Your task to perform on an android device: turn vacation reply on in the gmail app Image 0: 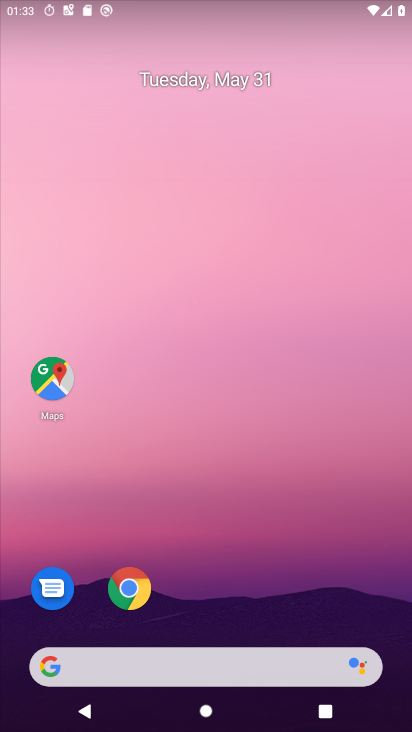
Step 0: drag from (122, 655) to (200, 14)
Your task to perform on an android device: turn vacation reply on in the gmail app Image 1: 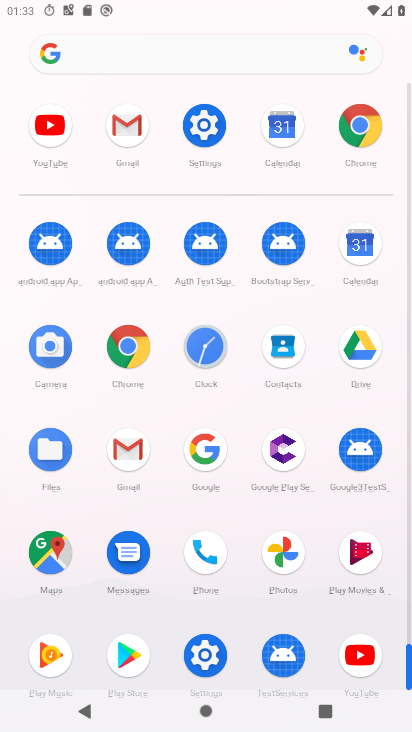
Step 1: click (126, 448)
Your task to perform on an android device: turn vacation reply on in the gmail app Image 2: 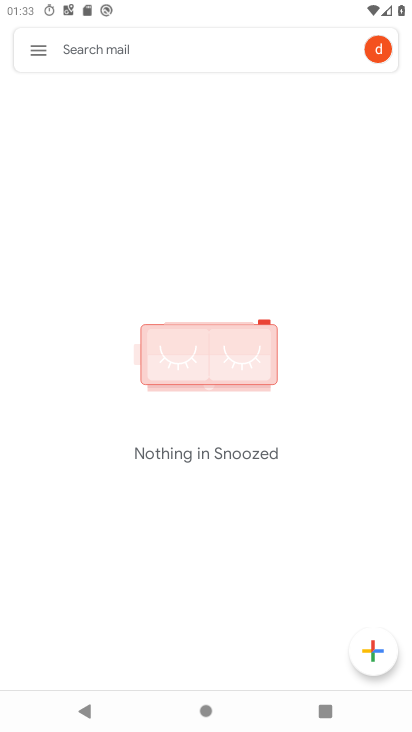
Step 2: click (42, 49)
Your task to perform on an android device: turn vacation reply on in the gmail app Image 3: 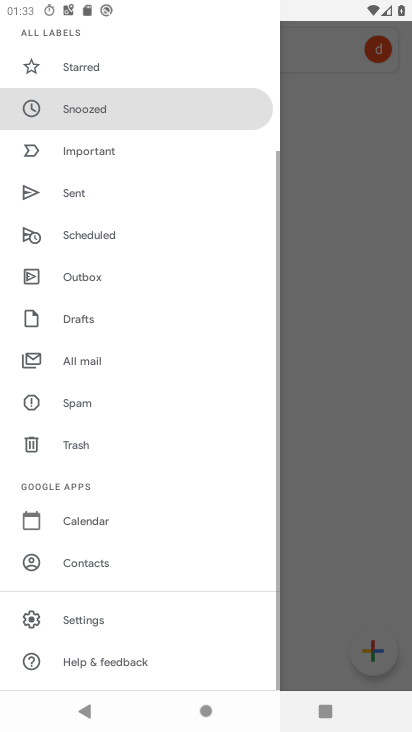
Step 3: click (107, 617)
Your task to perform on an android device: turn vacation reply on in the gmail app Image 4: 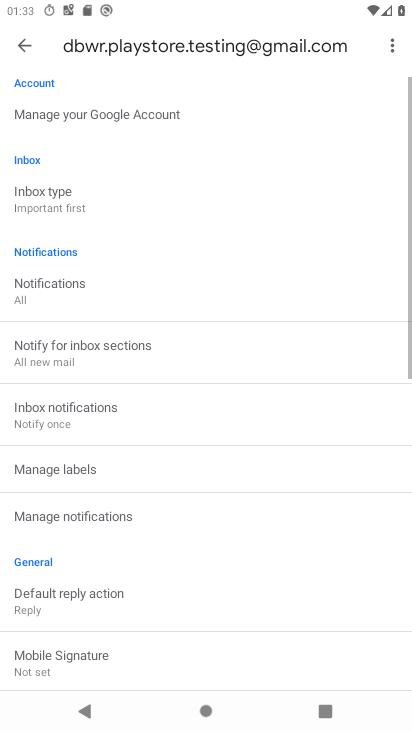
Step 4: drag from (154, 651) to (189, 184)
Your task to perform on an android device: turn vacation reply on in the gmail app Image 5: 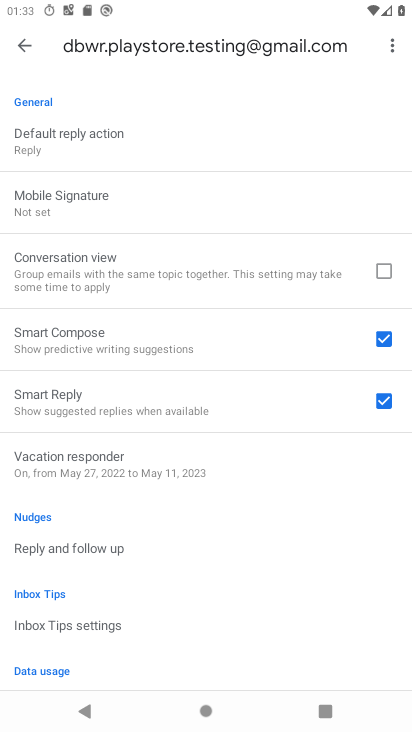
Step 5: click (144, 450)
Your task to perform on an android device: turn vacation reply on in the gmail app Image 6: 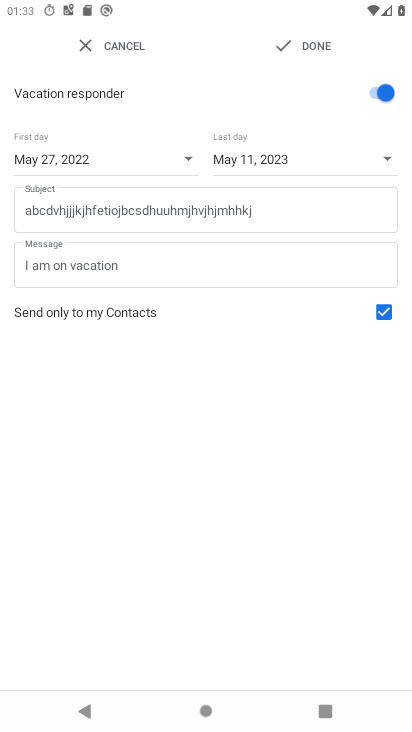
Step 6: task complete